Your task to perform on an android device: empty trash in the gmail app Image 0: 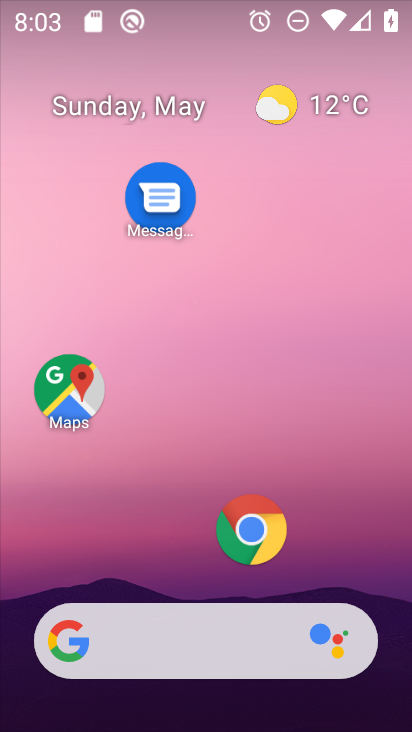
Step 0: press home button
Your task to perform on an android device: empty trash in the gmail app Image 1: 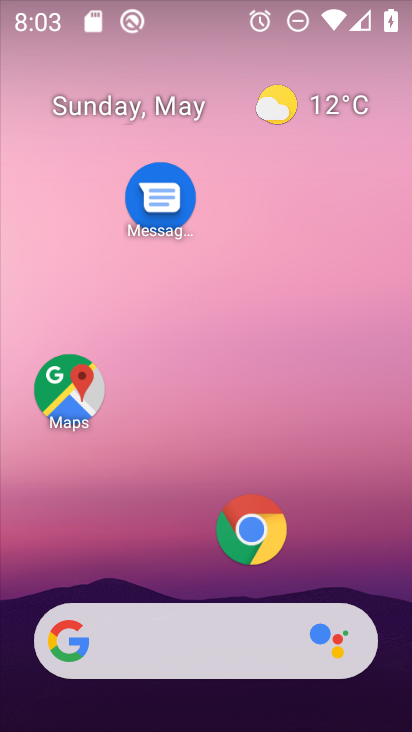
Step 1: drag from (203, 573) to (231, 216)
Your task to perform on an android device: empty trash in the gmail app Image 2: 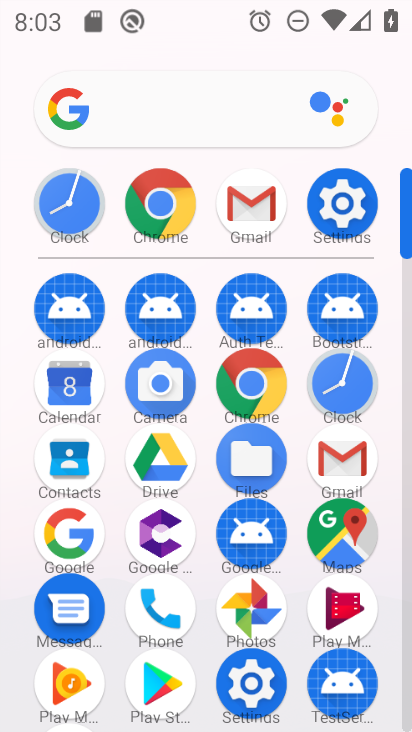
Step 2: click (340, 459)
Your task to perform on an android device: empty trash in the gmail app Image 3: 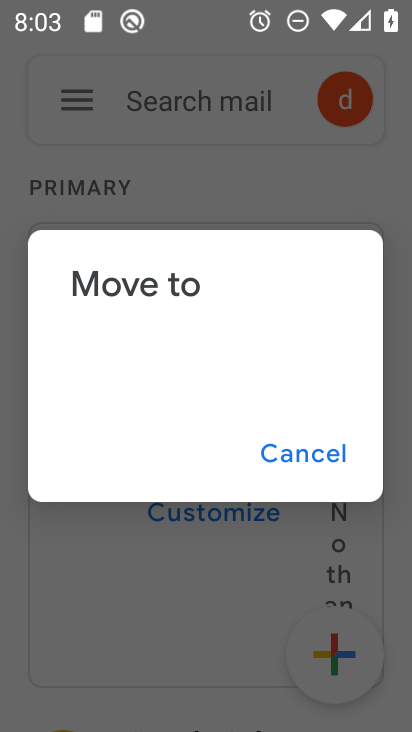
Step 3: click (258, 544)
Your task to perform on an android device: empty trash in the gmail app Image 4: 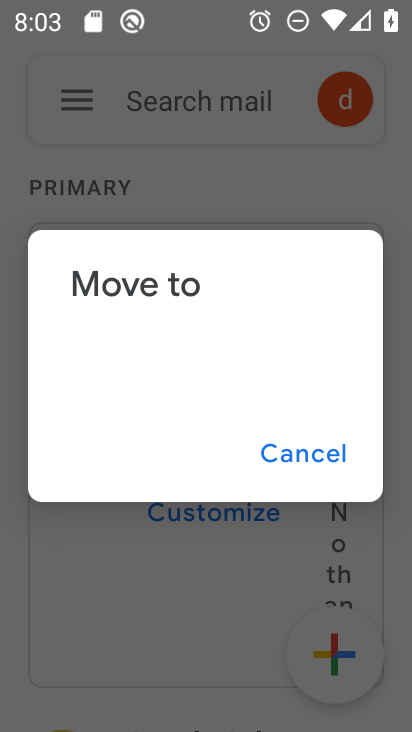
Step 4: click (295, 450)
Your task to perform on an android device: empty trash in the gmail app Image 5: 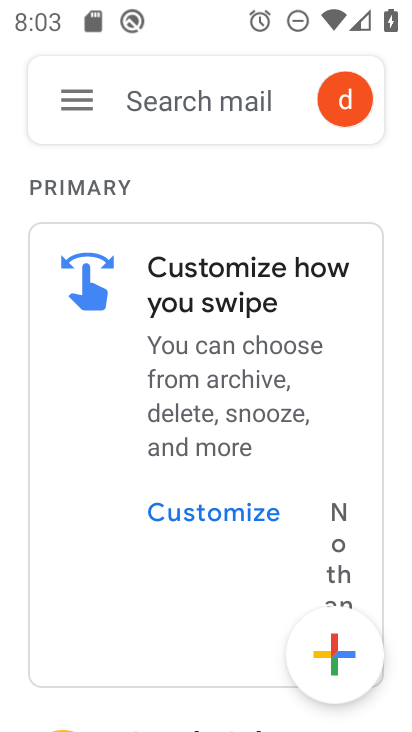
Step 5: click (83, 95)
Your task to perform on an android device: empty trash in the gmail app Image 6: 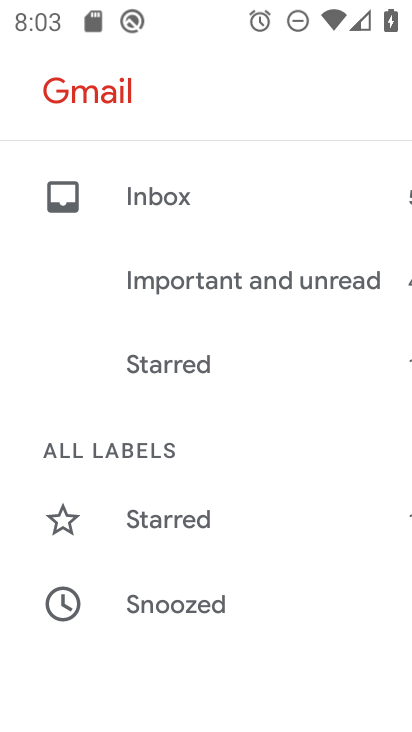
Step 6: drag from (210, 606) to (203, 164)
Your task to perform on an android device: empty trash in the gmail app Image 7: 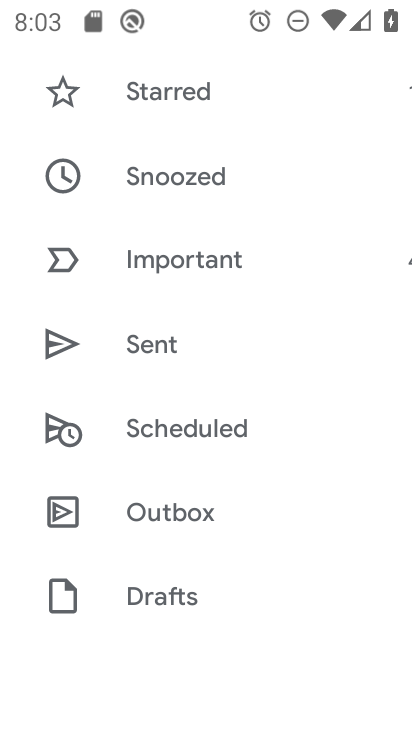
Step 7: drag from (171, 611) to (181, 151)
Your task to perform on an android device: empty trash in the gmail app Image 8: 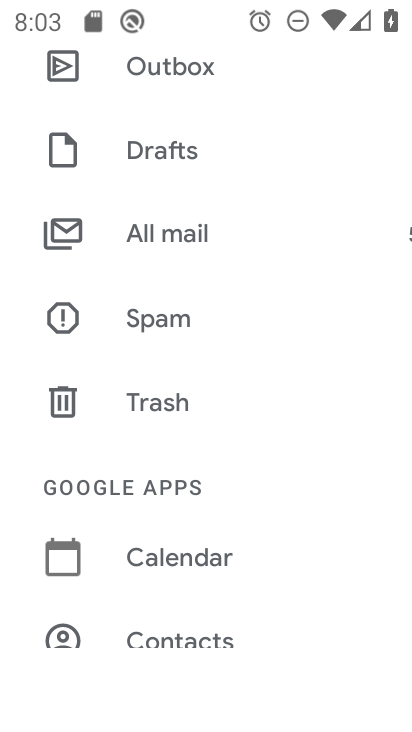
Step 8: click (178, 408)
Your task to perform on an android device: empty trash in the gmail app Image 9: 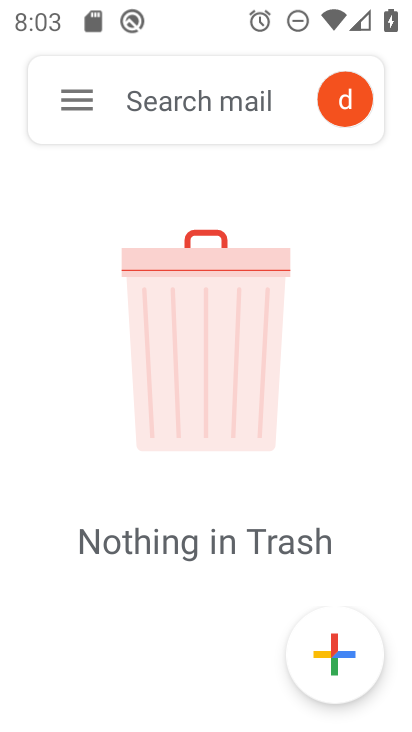
Step 9: task complete